Your task to perform on an android device: Go to ESPN.com Image 0: 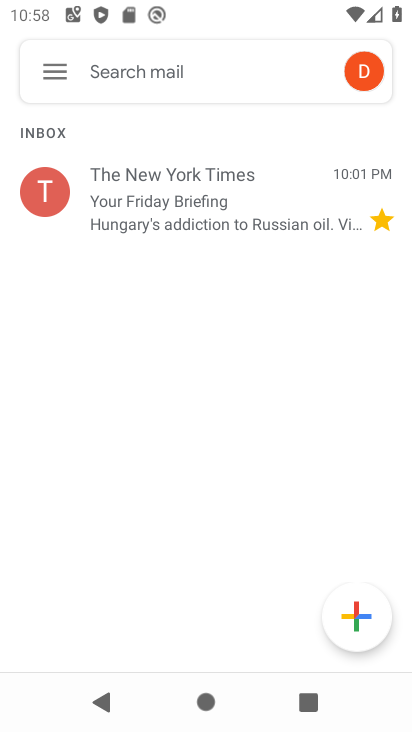
Step 0: press home button
Your task to perform on an android device: Go to ESPN.com Image 1: 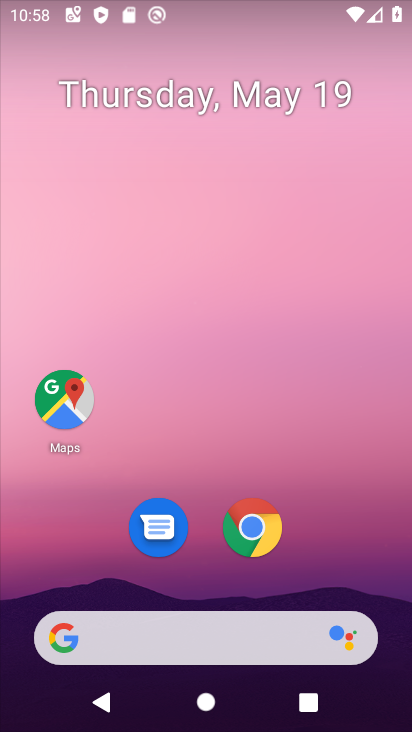
Step 1: click (254, 535)
Your task to perform on an android device: Go to ESPN.com Image 2: 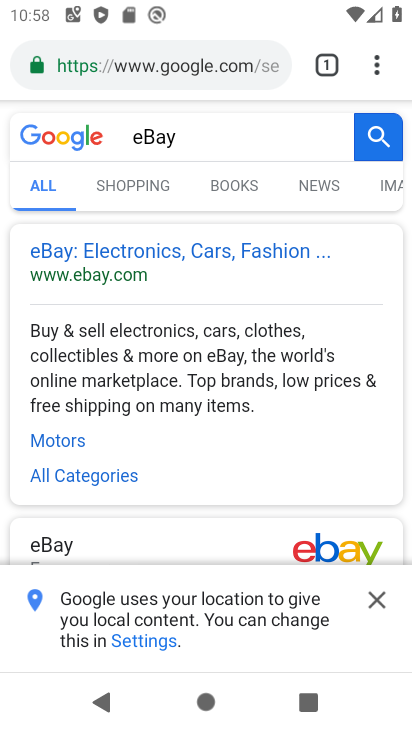
Step 2: click (186, 67)
Your task to perform on an android device: Go to ESPN.com Image 3: 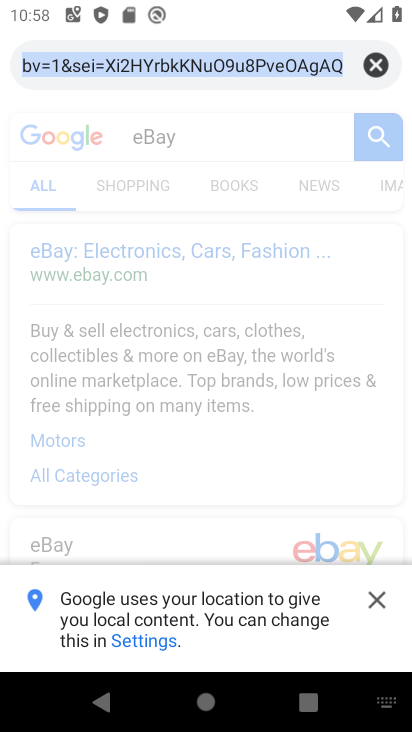
Step 3: type "ESPN.com"
Your task to perform on an android device: Go to ESPN.com Image 4: 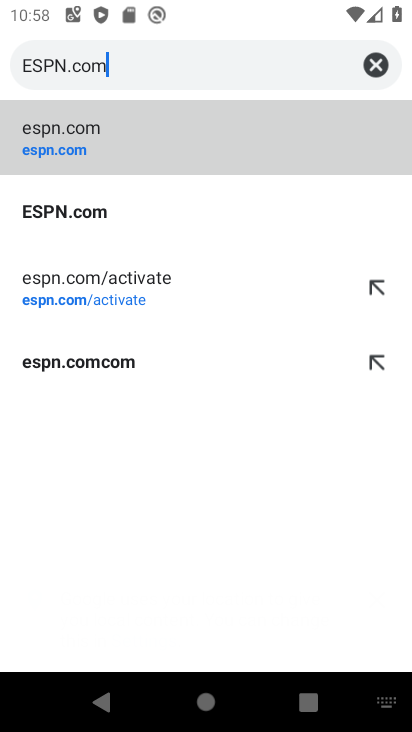
Step 4: click (83, 149)
Your task to perform on an android device: Go to ESPN.com Image 5: 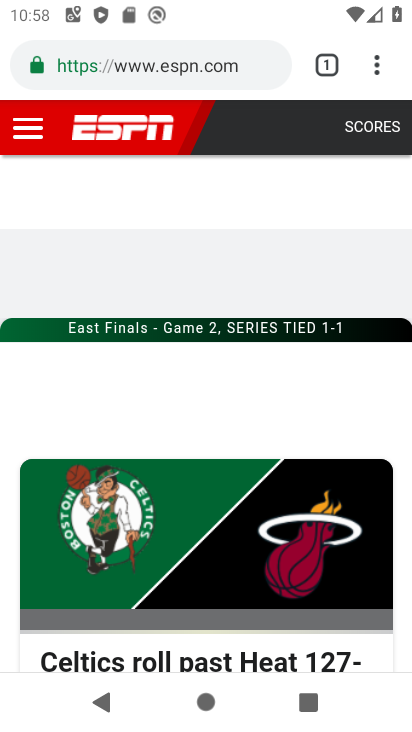
Step 5: task complete